Your task to perform on an android device: Search for seafood restaurants on Google Maps Image 0: 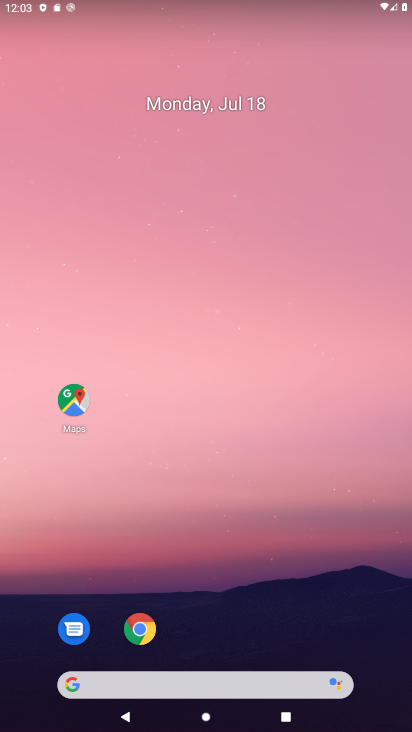
Step 0: click (74, 397)
Your task to perform on an android device: Search for seafood restaurants on Google Maps Image 1: 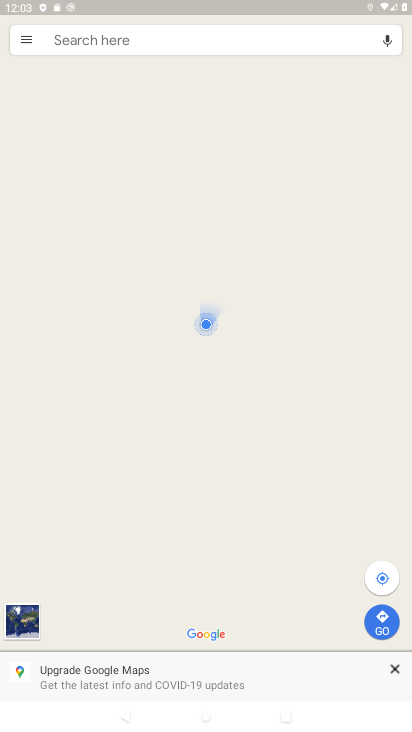
Step 1: click (101, 31)
Your task to perform on an android device: Search for seafood restaurants on Google Maps Image 2: 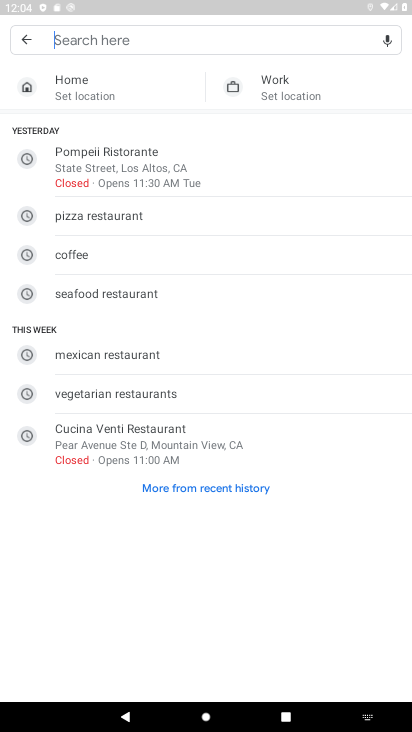
Step 2: click (102, 289)
Your task to perform on an android device: Search for seafood restaurants on Google Maps Image 3: 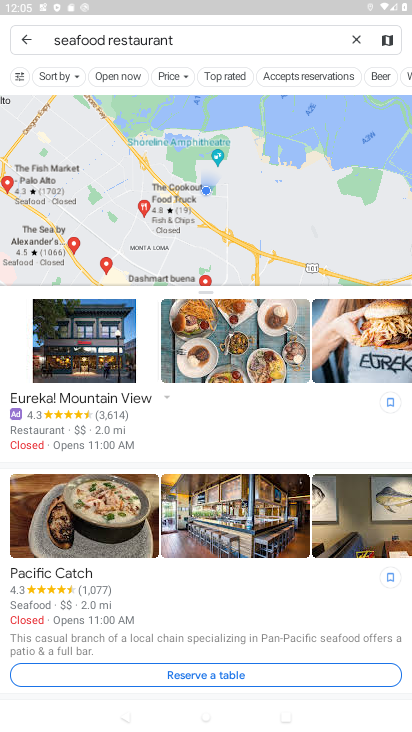
Step 3: task complete